Your task to perform on an android device: see creations saved in the google photos Image 0: 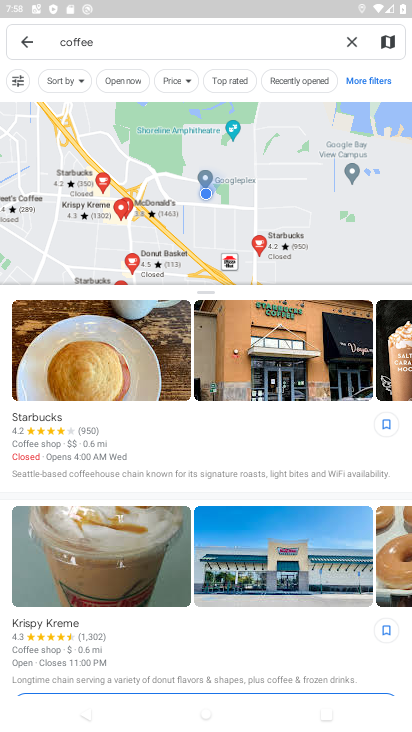
Step 0: press home button
Your task to perform on an android device: see creations saved in the google photos Image 1: 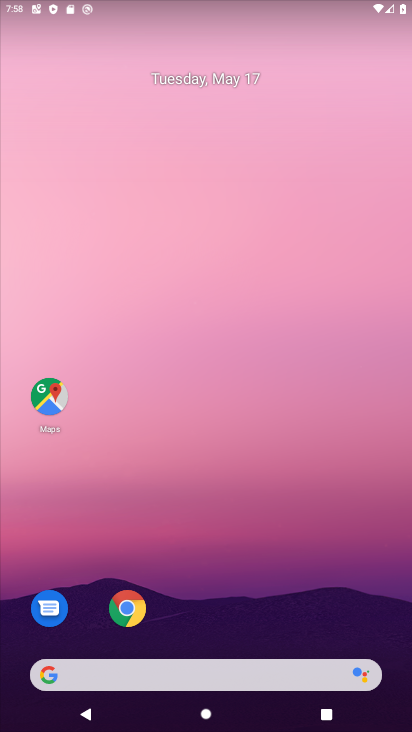
Step 1: drag from (186, 608) to (266, 7)
Your task to perform on an android device: see creations saved in the google photos Image 2: 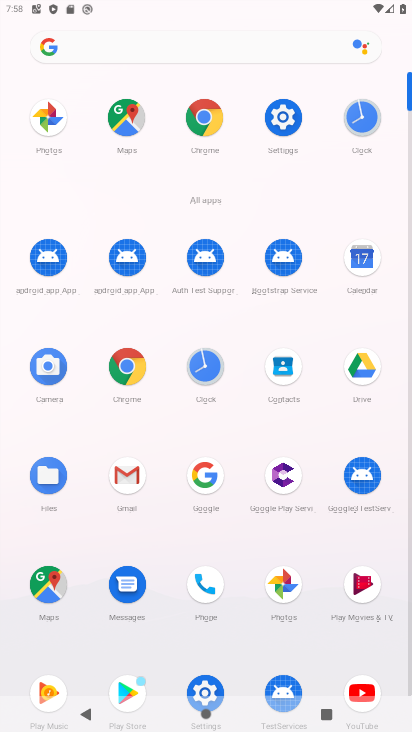
Step 2: click (47, 111)
Your task to perform on an android device: see creations saved in the google photos Image 3: 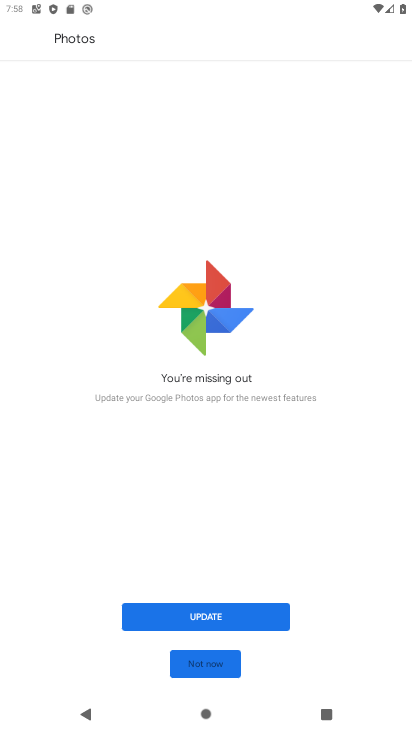
Step 3: click (210, 665)
Your task to perform on an android device: see creations saved in the google photos Image 4: 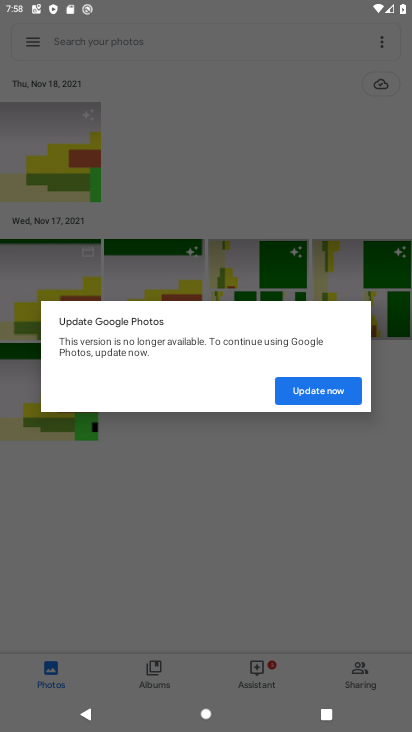
Step 4: click (318, 392)
Your task to perform on an android device: see creations saved in the google photos Image 5: 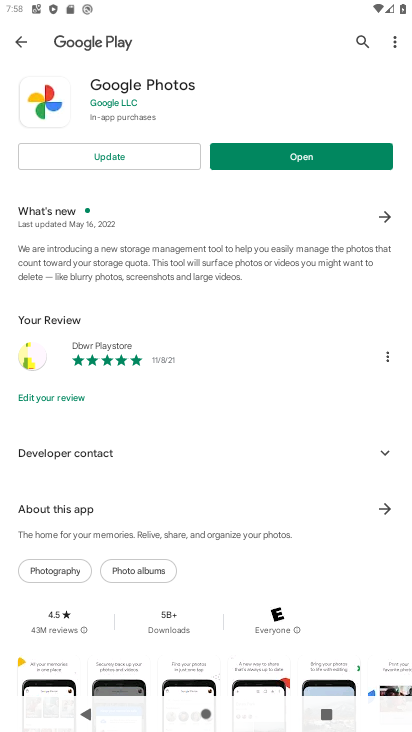
Step 5: click (275, 165)
Your task to perform on an android device: see creations saved in the google photos Image 6: 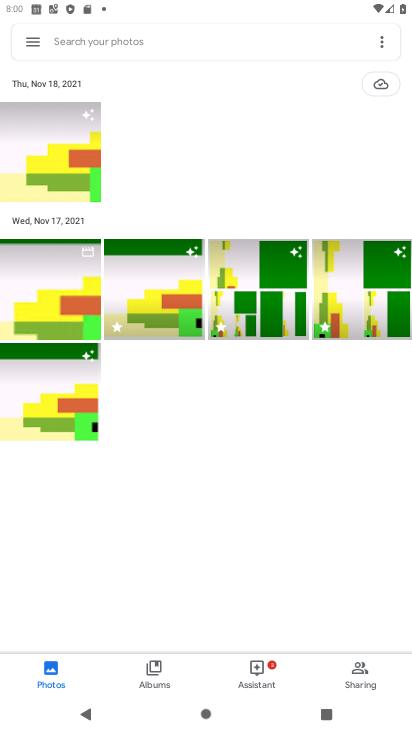
Step 6: click (364, 682)
Your task to perform on an android device: see creations saved in the google photos Image 7: 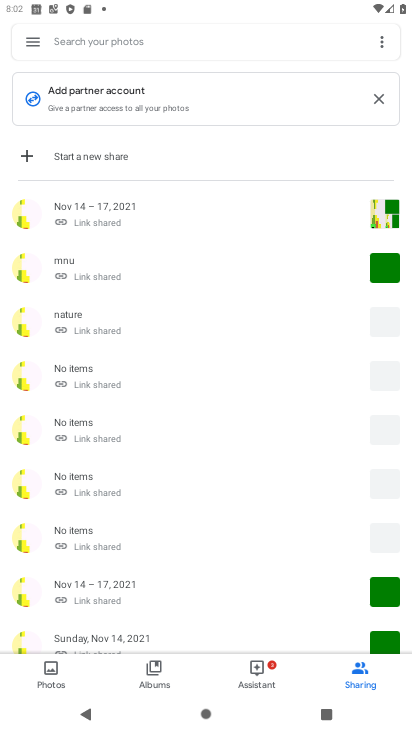
Step 7: task complete